Your task to perform on an android device: Search for Italian restaurants on Maps Image 0: 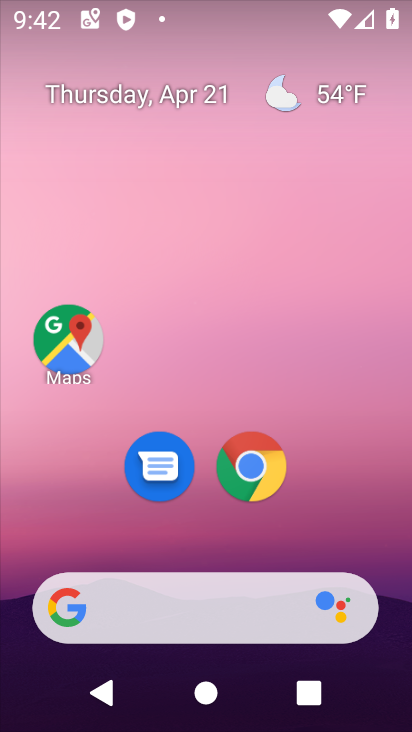
Step 0: drag from (381, 543) to (375, 137)
Your task to perform on an android device: Search for Italian restaurants on Maps Image 1: 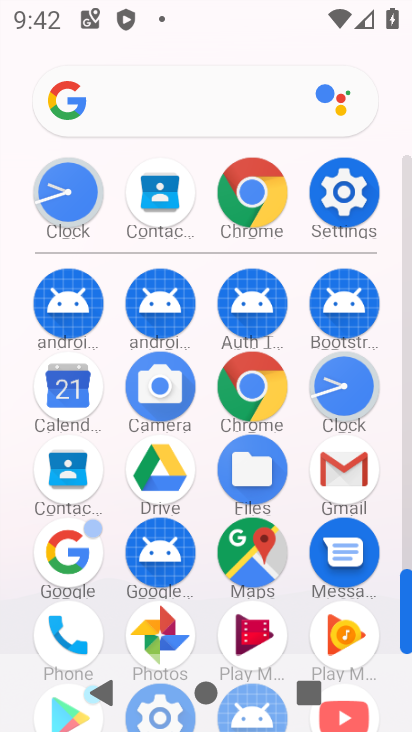
Step 1: drag from (306, 597) to (304, 342)
Your task to perform on an android device: Search for Italian restaurants on Maps Image 2: 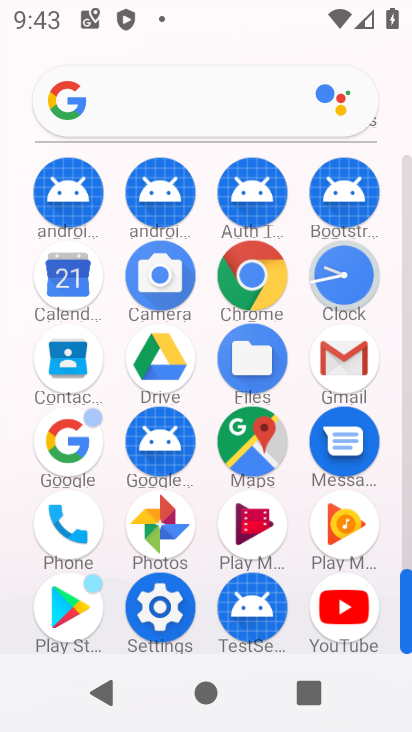
Step 2: click (231, 450)
Your task to perform on an android device: Search for Italian restaurants on Maps Image 3: 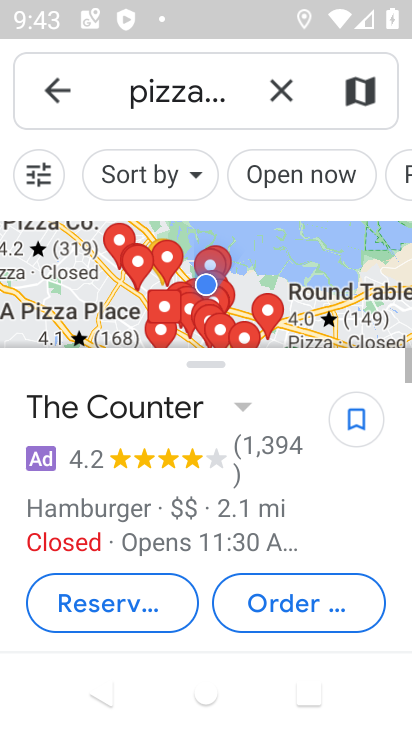
Step 3: click (287, 86)
Your task to perform on an android device: Search for Italian restaurants on Maps Image 4: 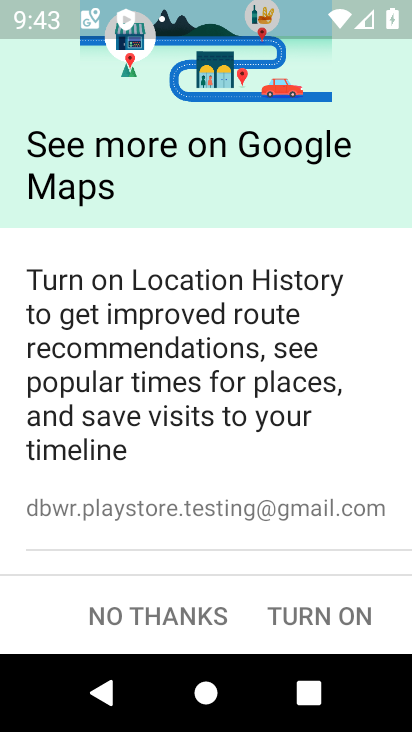
Step 4: click (171, 619)
Your task to perform on an android device: Search for Italian restaurants on Maps Image 5: 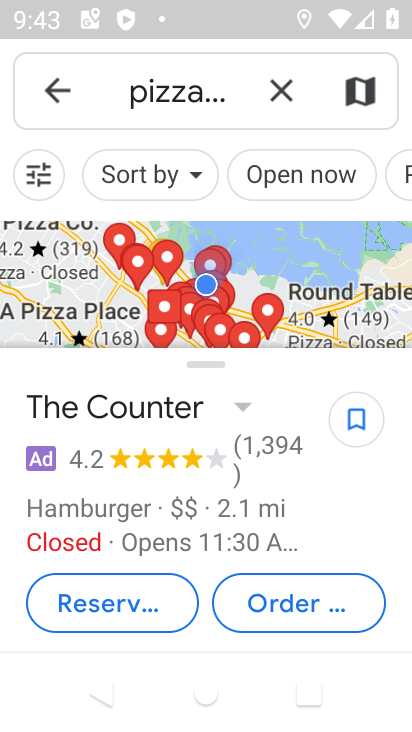
Step 5: click (290, 93)
Your task to perform on an android device: Search for Italian restaurants on Maps Image 6: 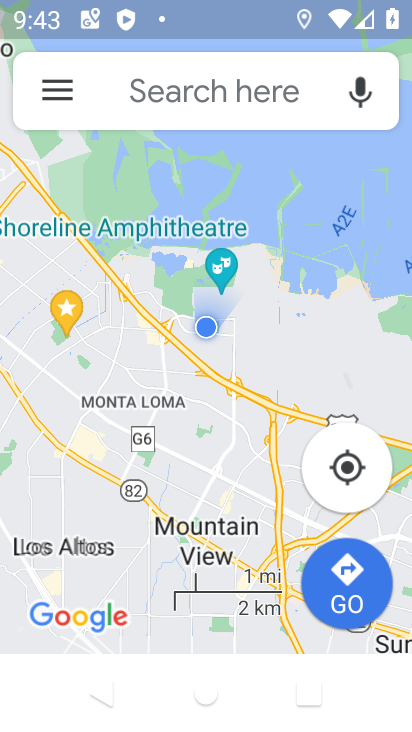
Step 6: click (216, 98)
Your task to perform on an android device: Search for Italian restaurants on Maps Image 7: 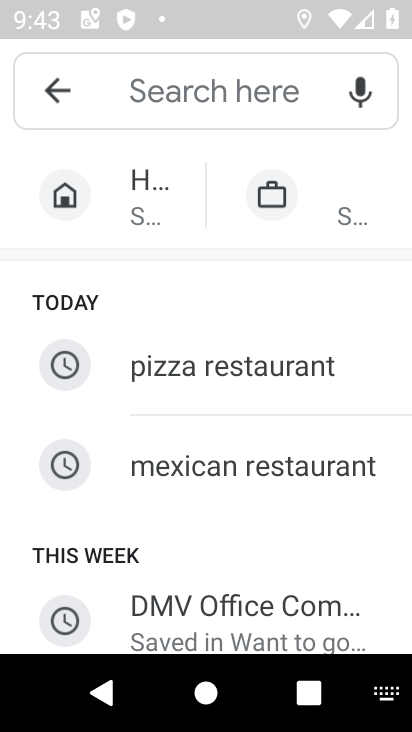
Step 7: type "italian restaurants"
Your task to perform on an android device: Search for Italian restaurants on Maps Image 8: 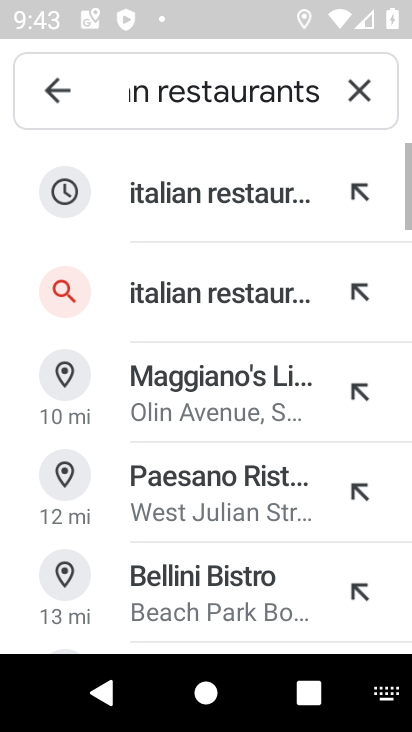
Step 8: click (217, 196)
Your task to perform on an android device: Search for Italian restaurants on Maps Image 9: 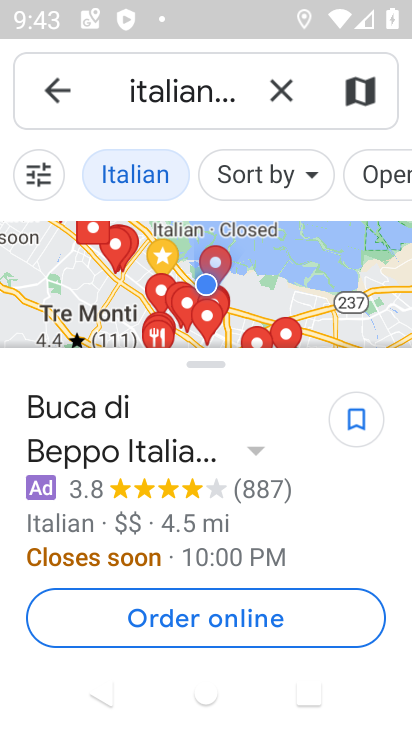
Step 9: task complete